Your task to perform on an android device: open app "Google Keep" (install if not already installed) Image 0: 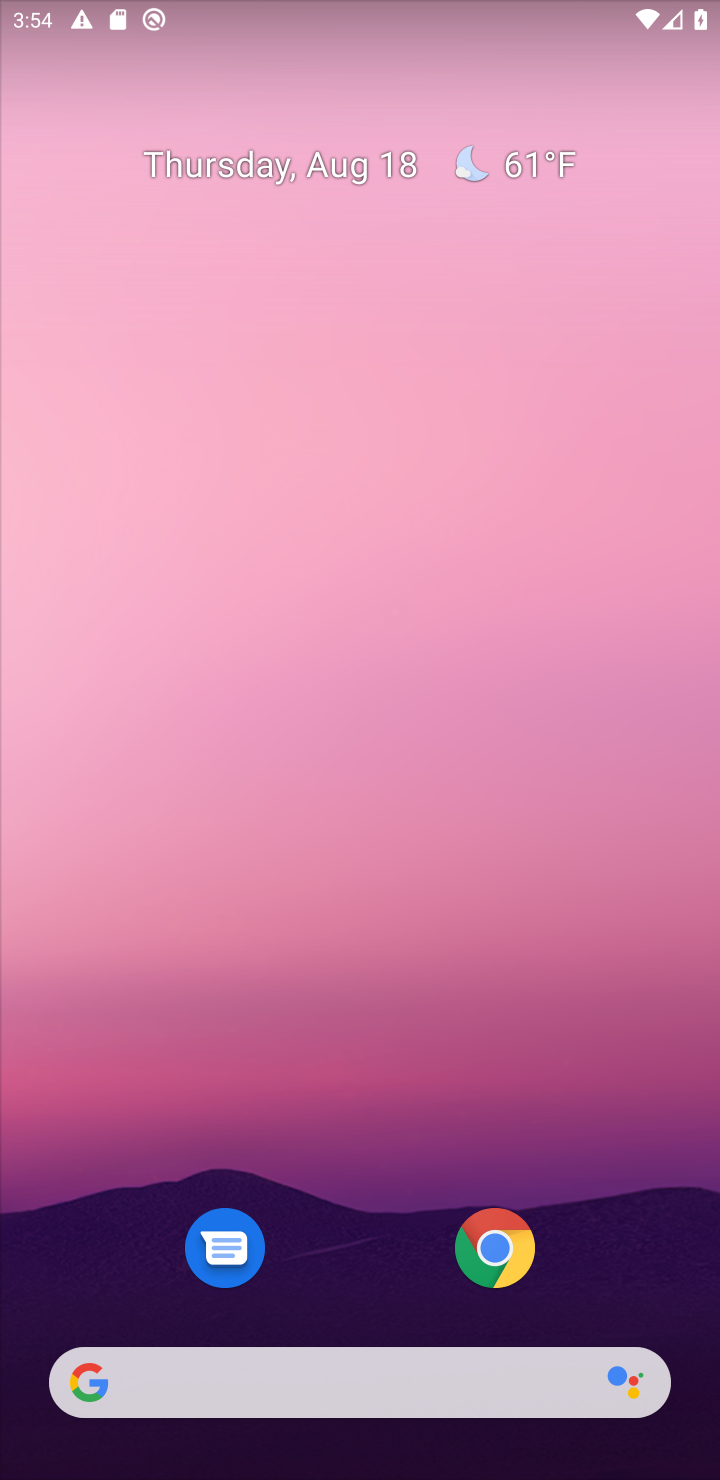
Step 0: drag from (338, 999) to (326, 249)
Your task to perform on an android device: open app "Google Keep" (install if not already installed) Image 1: 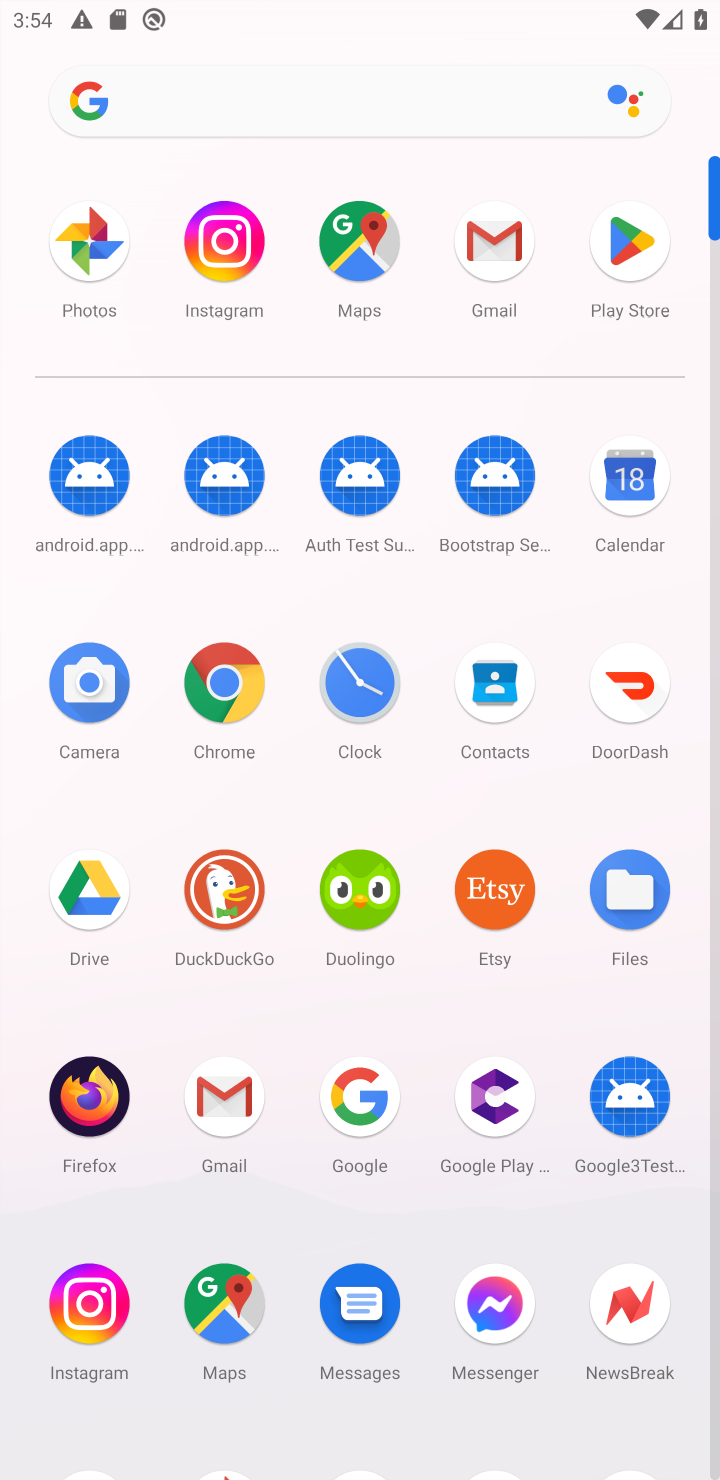
Step 1: click (638, 238)
Your task to perform on an android device: open app "Google Keep" (install if not already installed) Image 2: 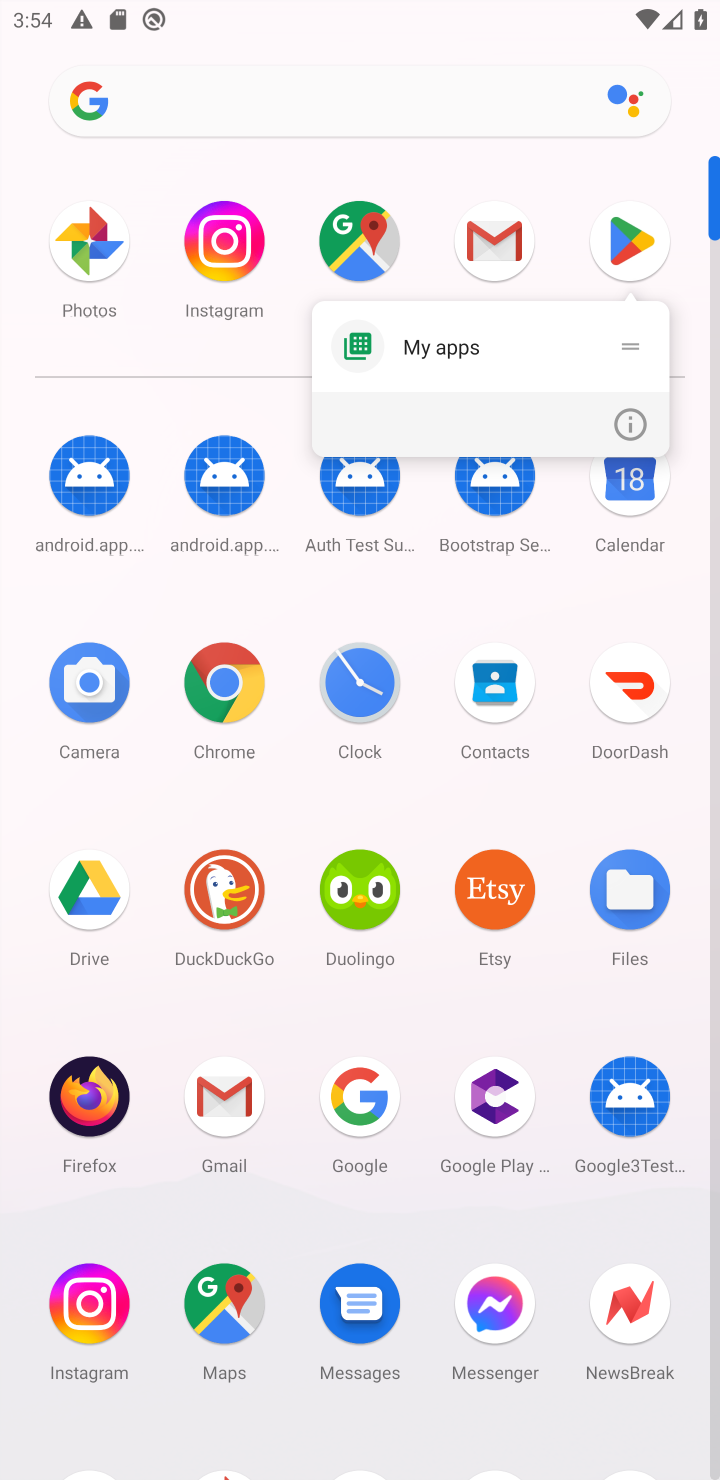
Step 2: click (624, 249)
Your task to perform on an android device: open app "Google Keep" (install if not already installed) Image 3: 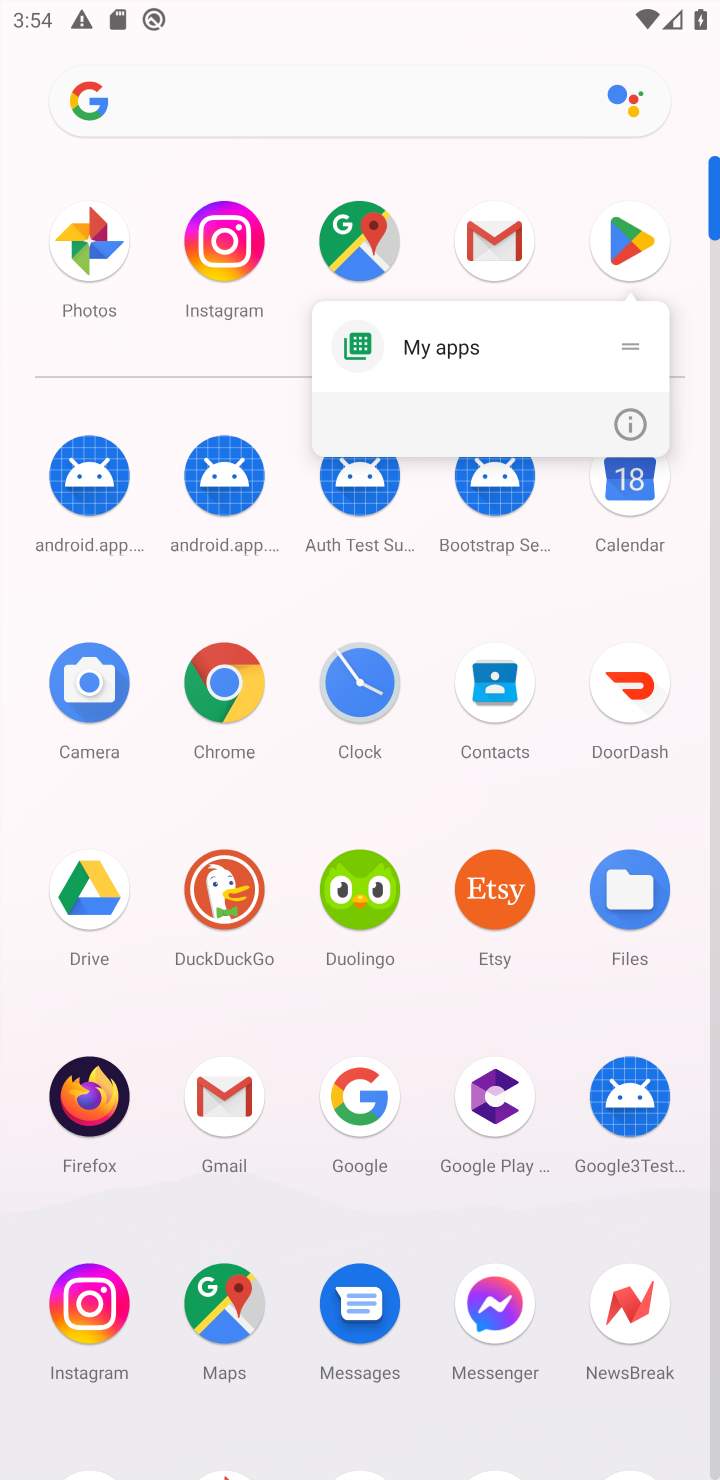
Step 3: click (635, 253)
Your task to perform on an android device: open app "Google Keep" (install if not already installed) Image 4: 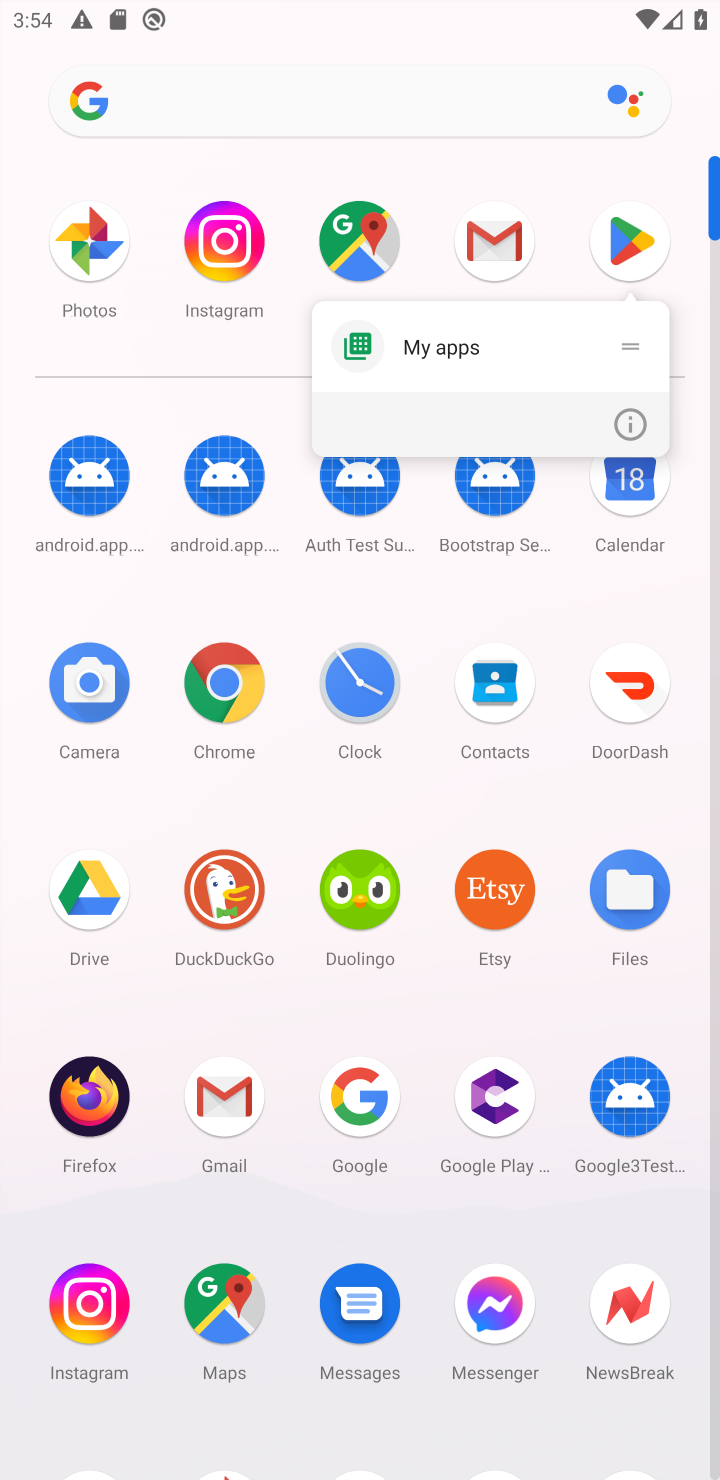
Step 4: click (602, 283)
Your task to perform on an android device: open app "Google Keep" (install if not already installed) Image 5: 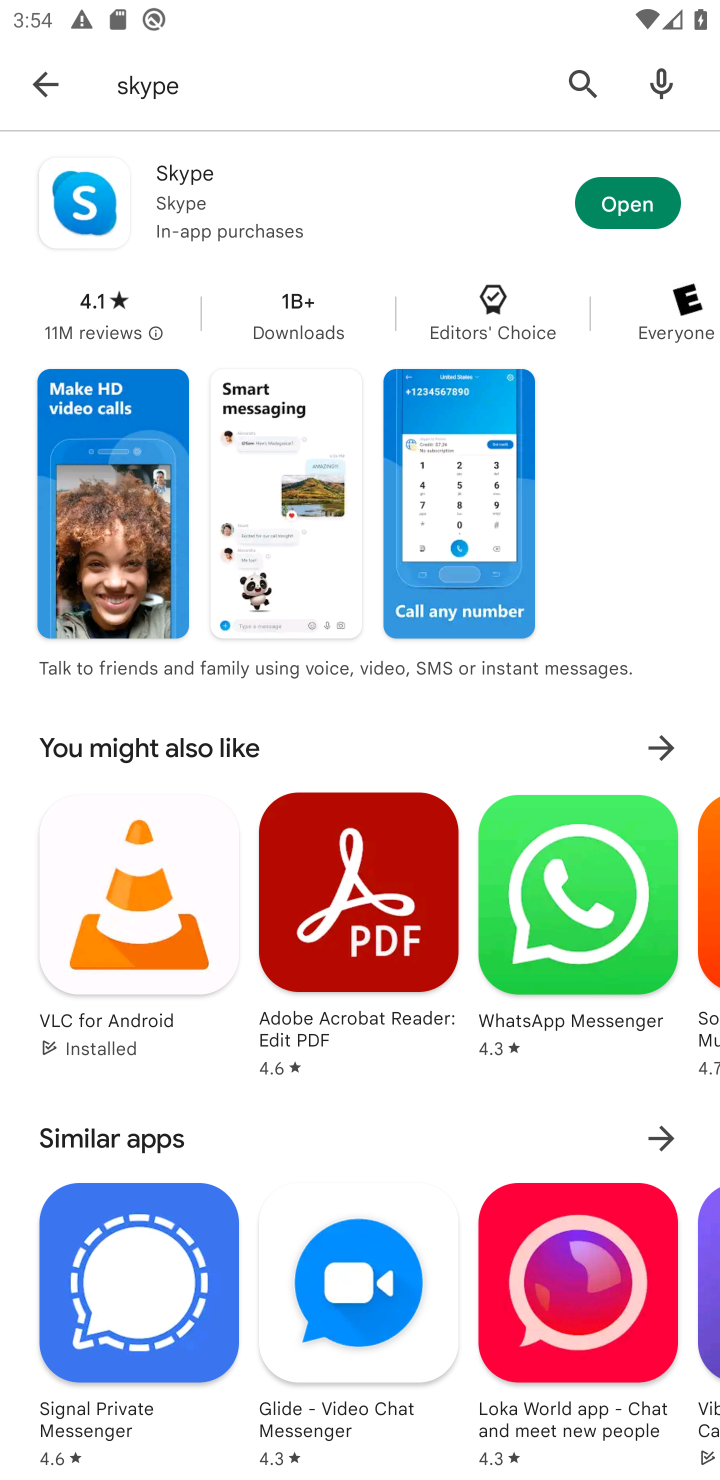
Step 5: click (584, 71)
Your task to perform on an android device: open app "Google Keep" (install if not already installed) Image 6: 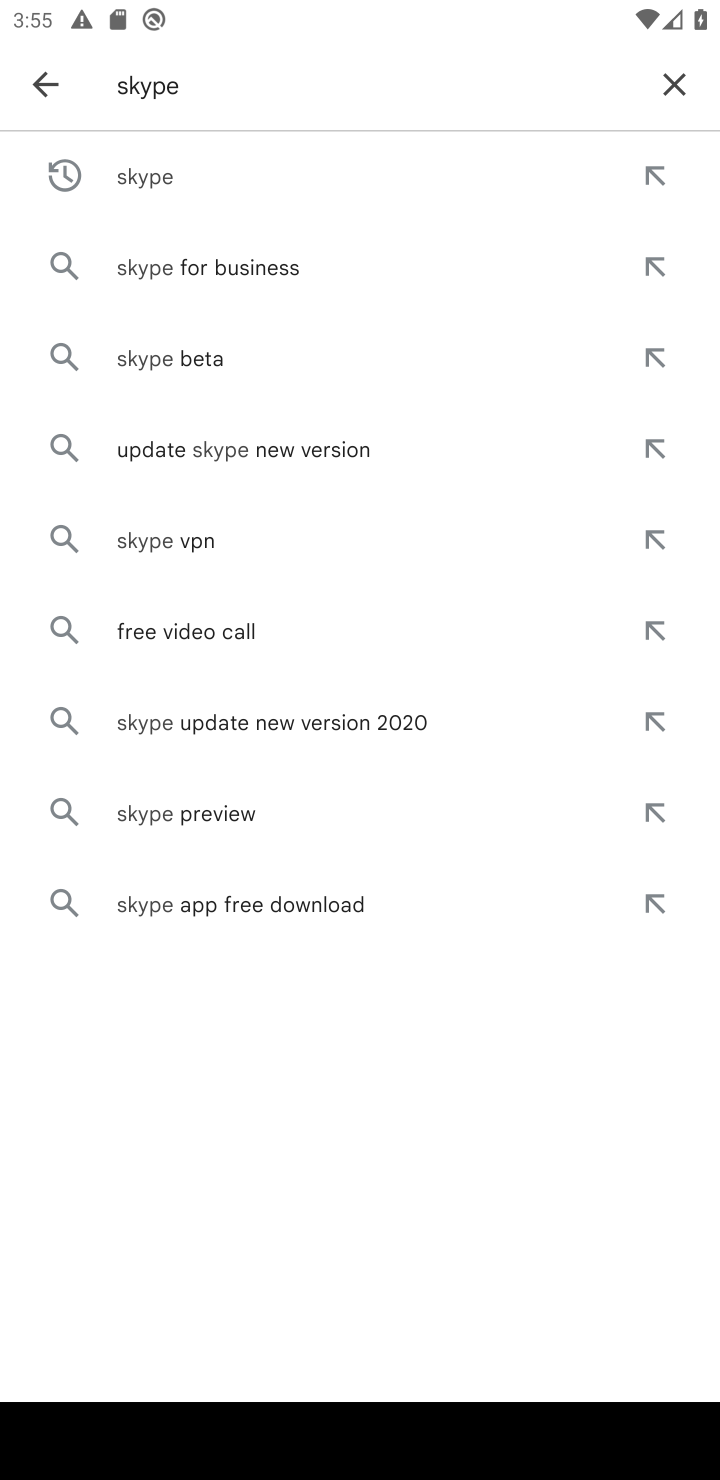
Step 6: click (668, 73)
Your task to perform on an android device: open app "Google Keep" (install if not already installed) Image 7: 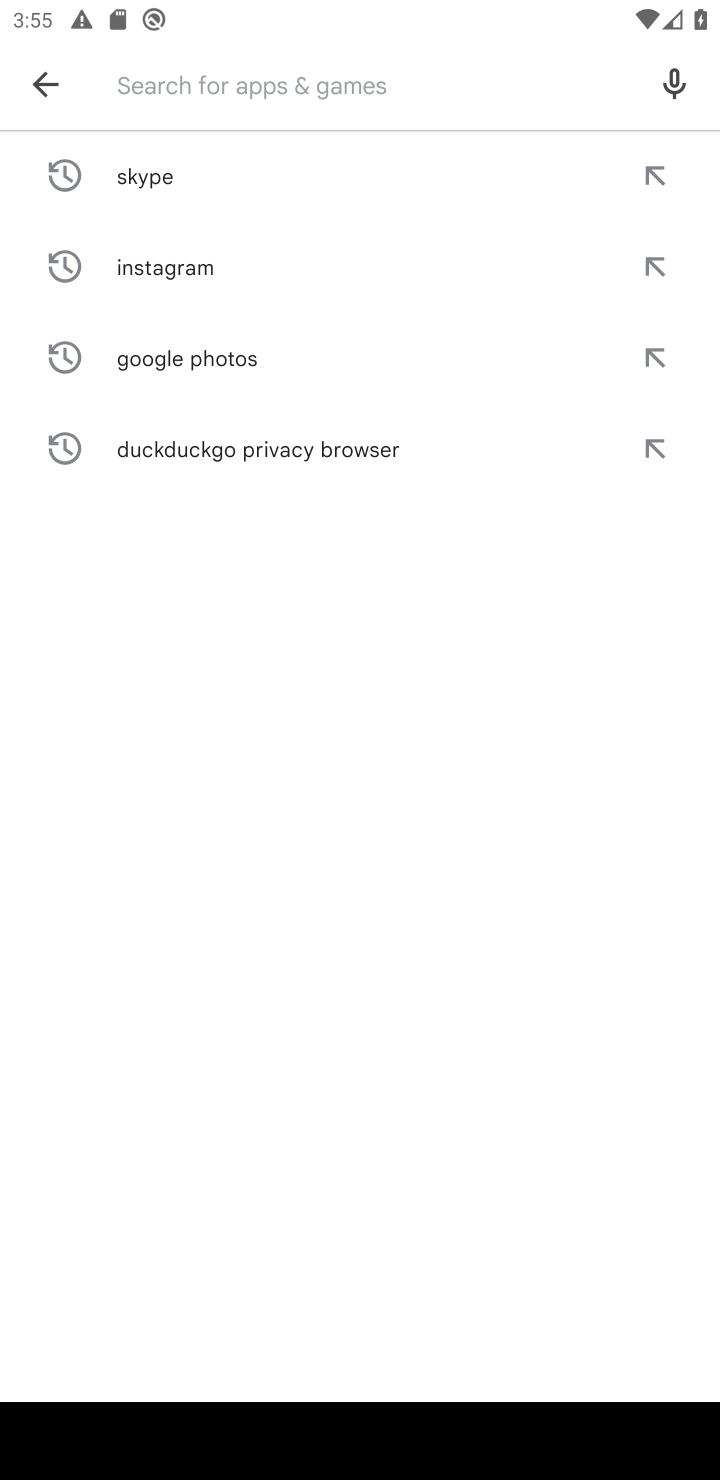
Step 7: type "Google Keep"
Your task to perform on an android device: open app "Google Keep" (install if not already installed) Image 8: 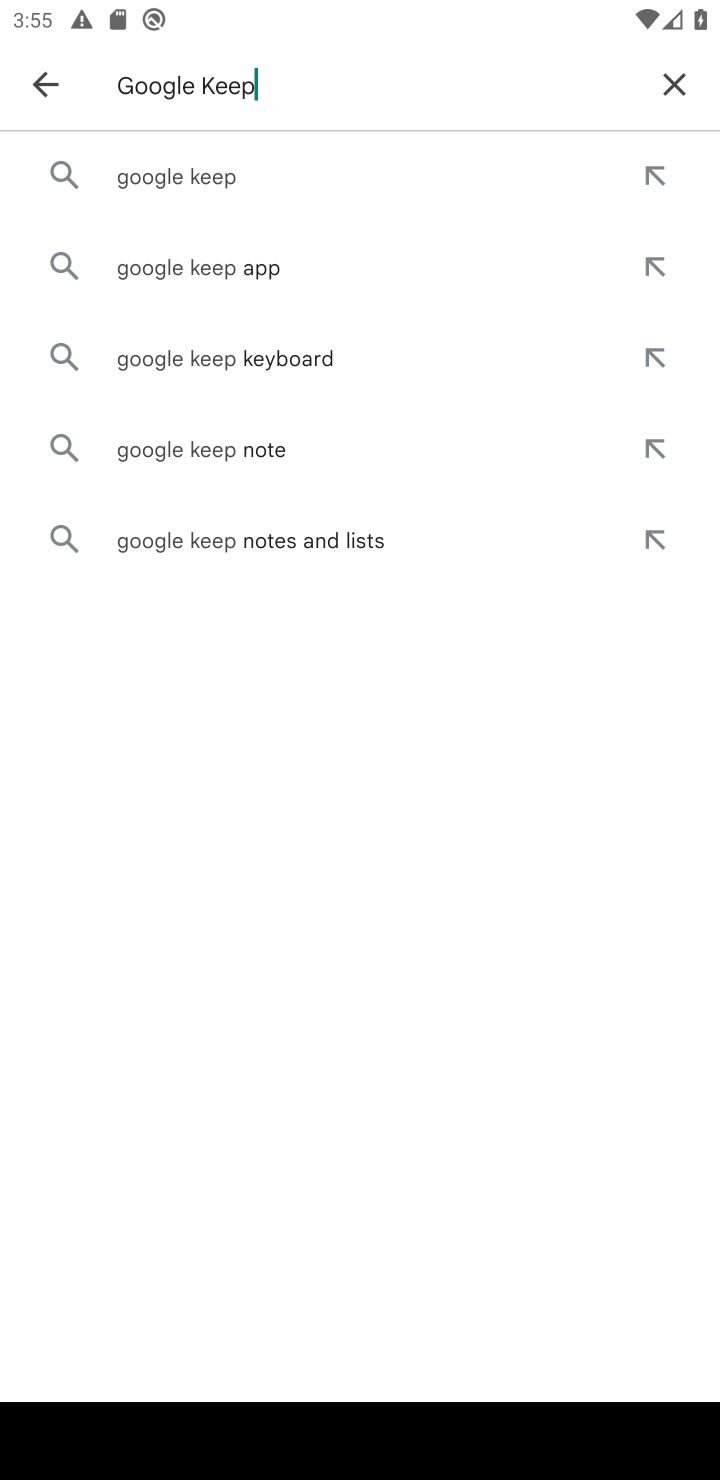
Step 8: type ""
Your task to perform on an android device: open app "Google Keep" (install if not already installed) Image 9: 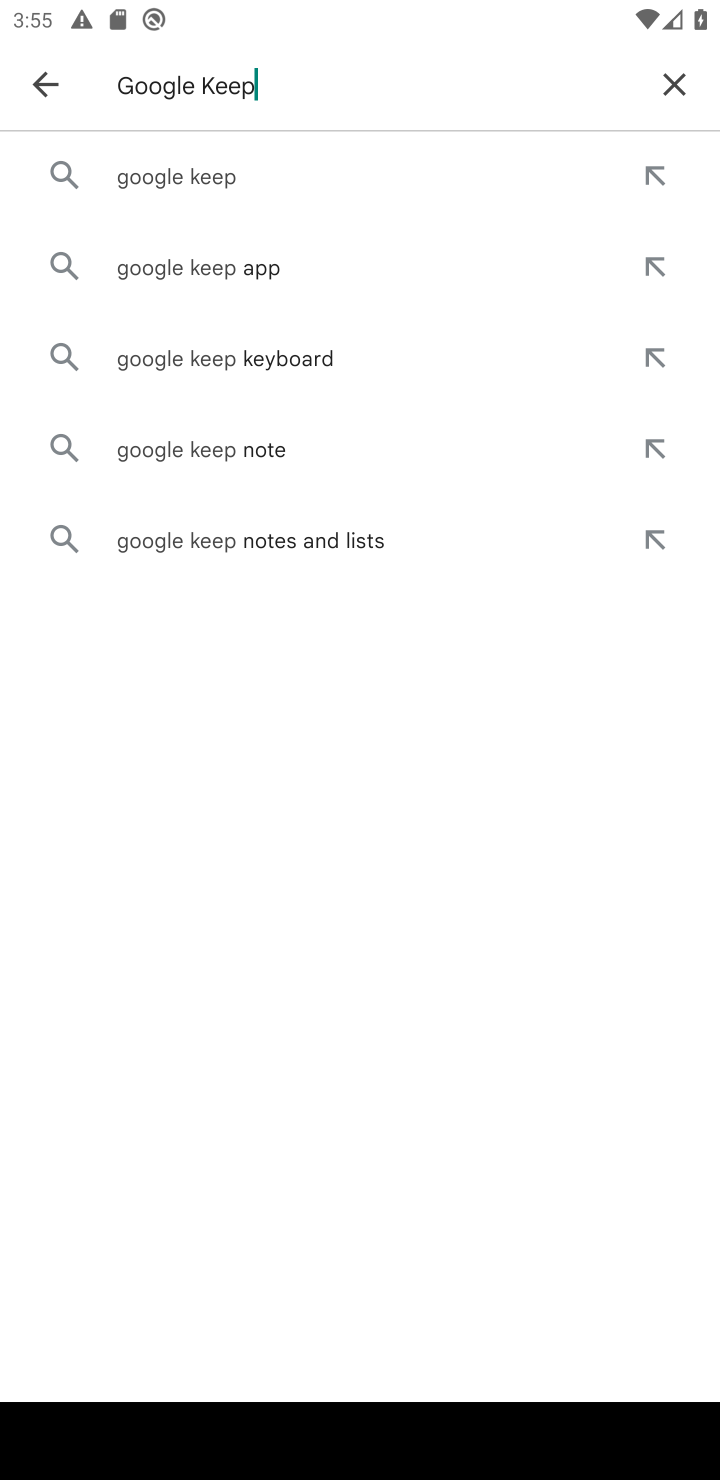
Step 9: click (204, 172)
Your task to perform on an android device: open app "Google Keep" (install if not already installed) Image 10: 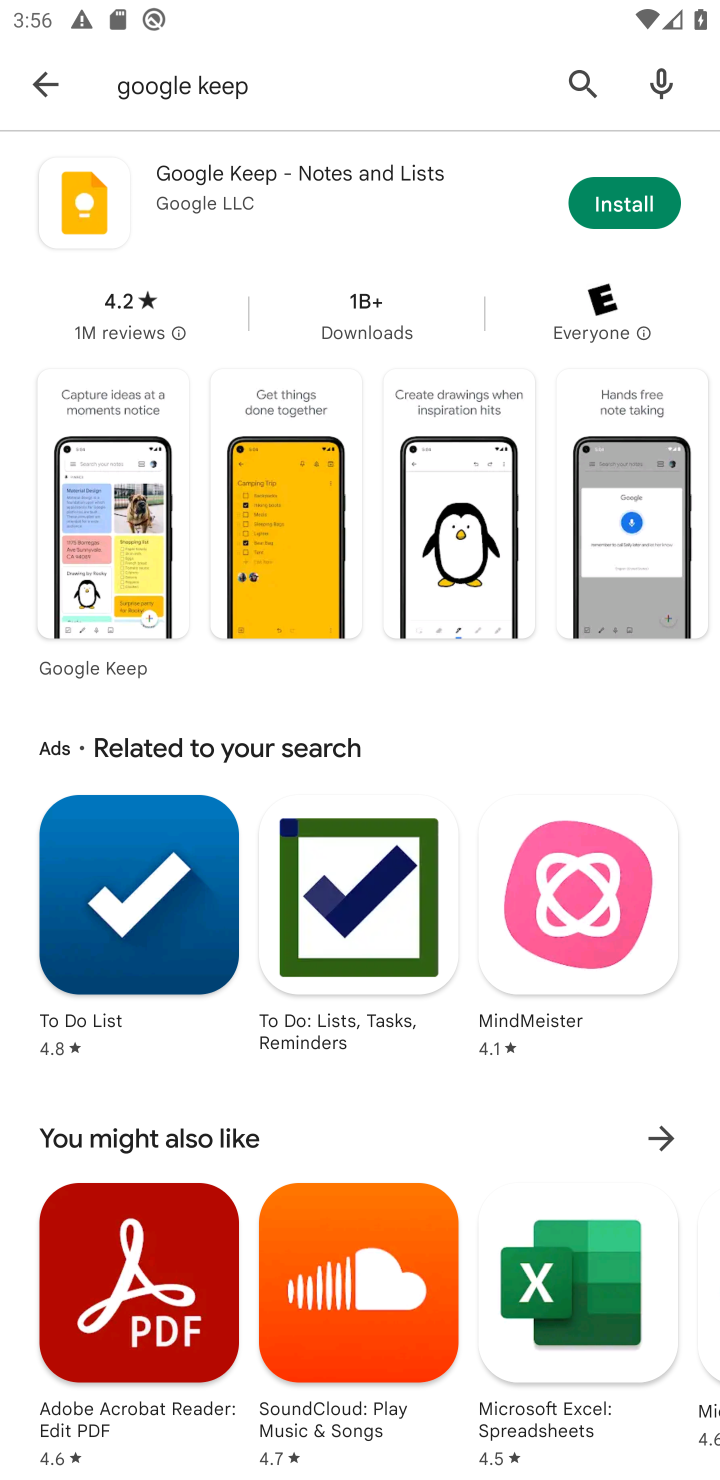
Step 10: click (629, 196)
Your task to perform on an android device: open app "Google Keep" (install if not already installed) Image 11: 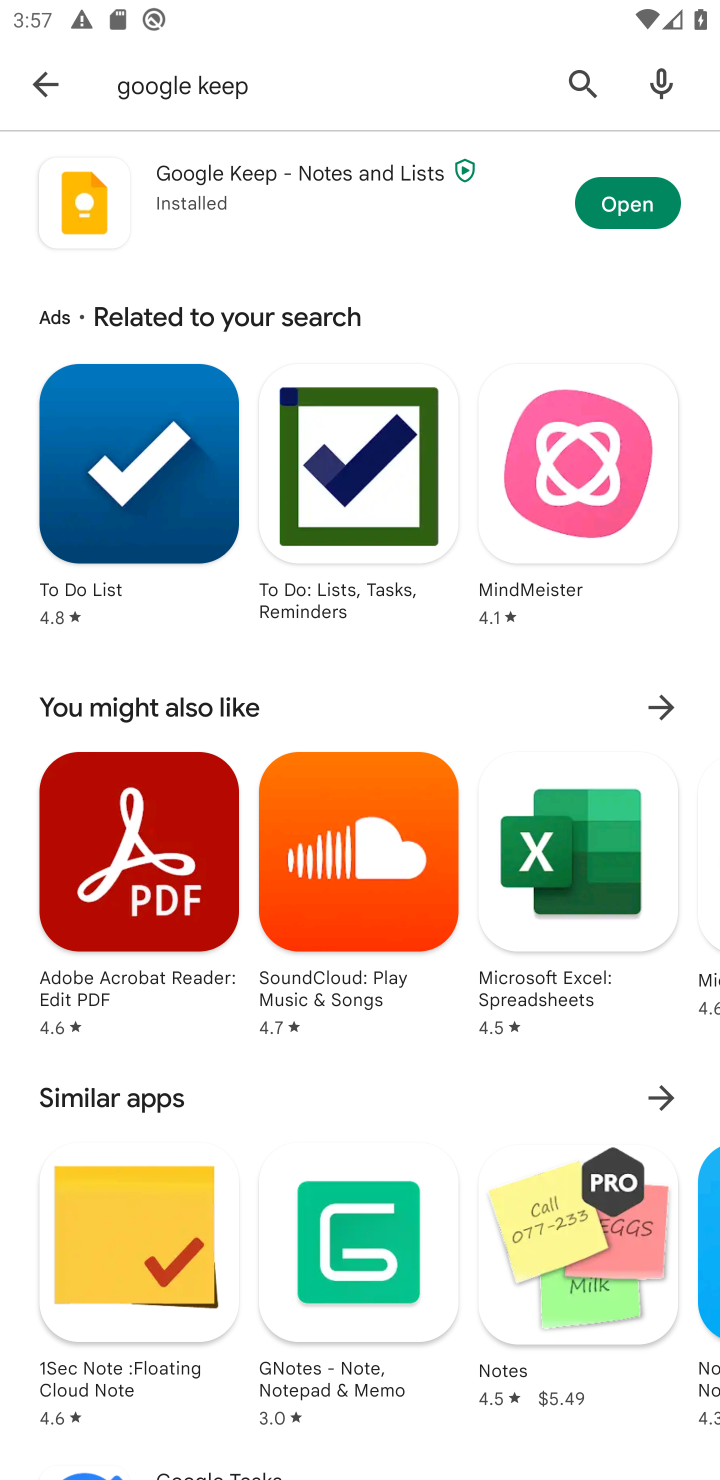
Step 11: click (620, 205)
Your task to perform on an android device: open app "Google Keep" (install if not already installed) Image 12: 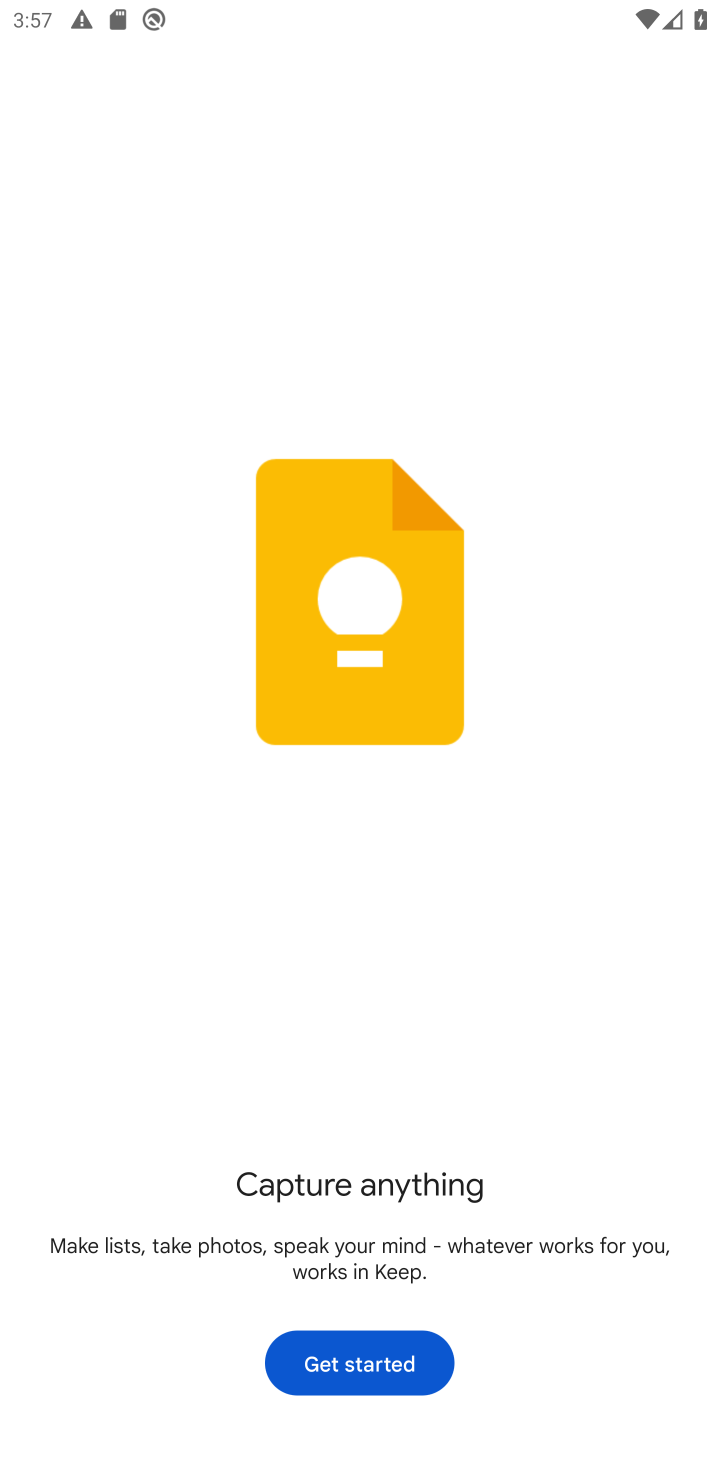
Step 12: task complete